Your task to perform on an android device: toggle notifications settings in the gmail app Image 0: 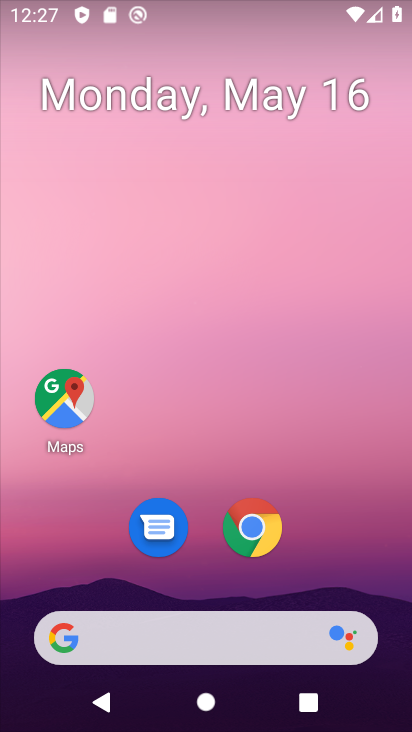
Step 0: press home button
Your task to perform on an android device: toggle notifications settings in the gmail app Image 1: 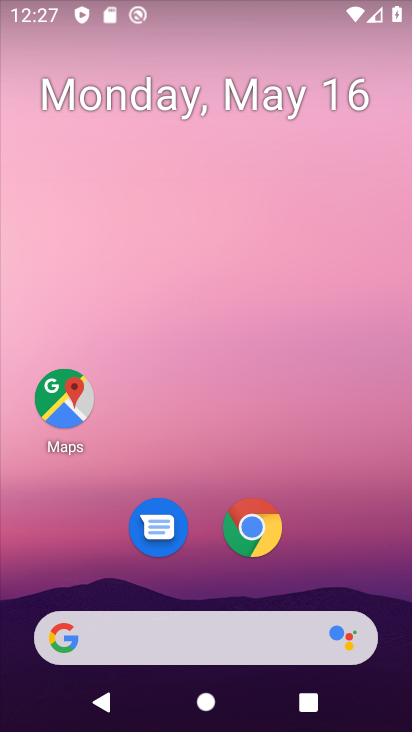
Step 1: drag from (176, 641) to (254, 210)
Your task to perform on an android device: toggle notifications settings in the gmail app Image 2: 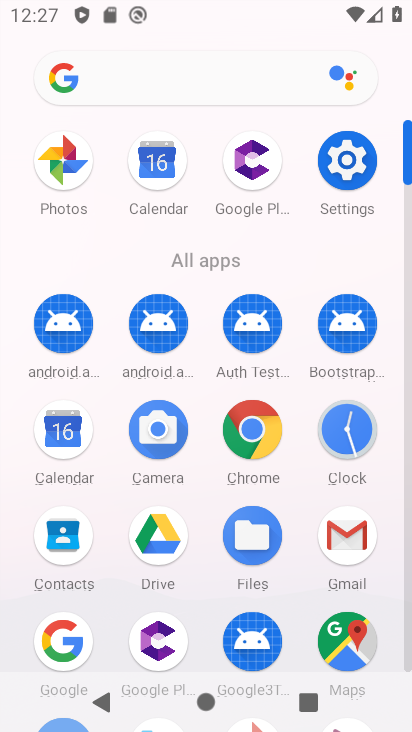
Step 2: click (353, 536)
Your task to perform on an android device: toggle notifications settings in the gmail app Image 3: 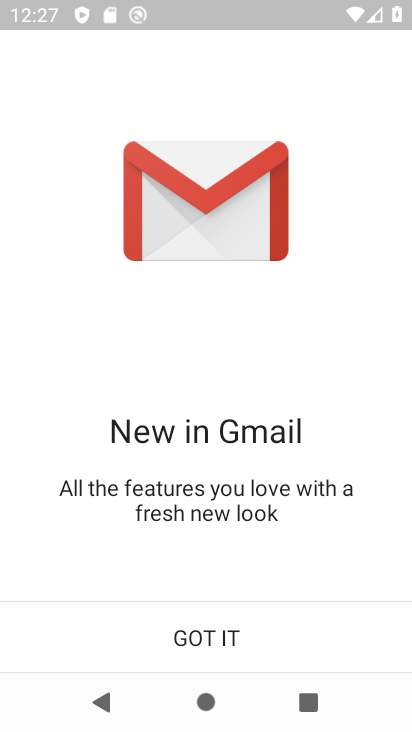
Step 3: click (209, 626)
Your task to perform on an android device: toggle notifications settings in the gmail app Image 4: 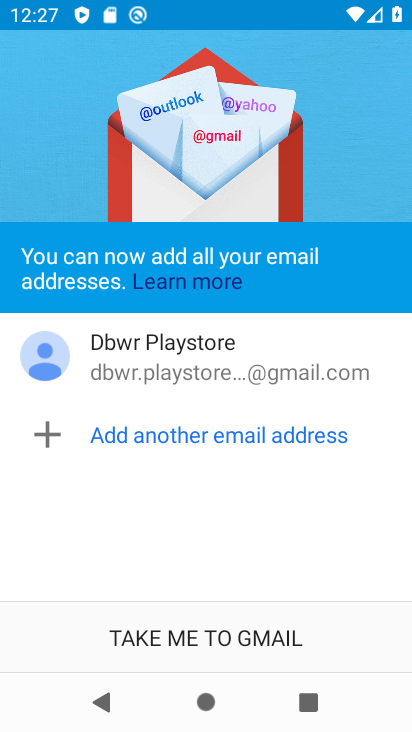
Step 4: click (208, 630)
Your task to perform on an android device: toggle notifications settings in the gmail app Image 5: 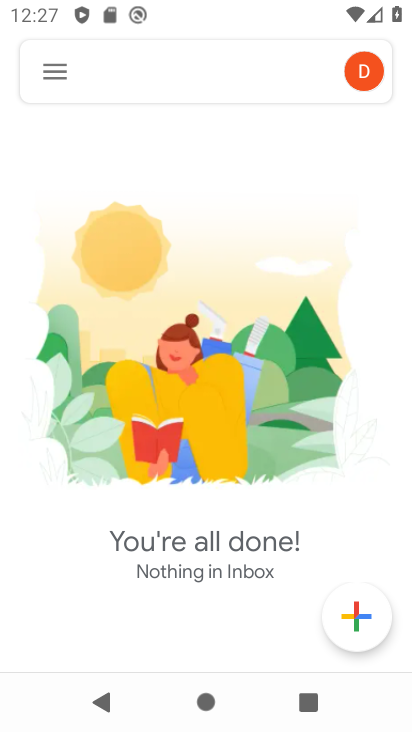
Step 5: click (50, 76)
Your task to perform on an android device: toggle notifications settings in the gmail app Image 6: 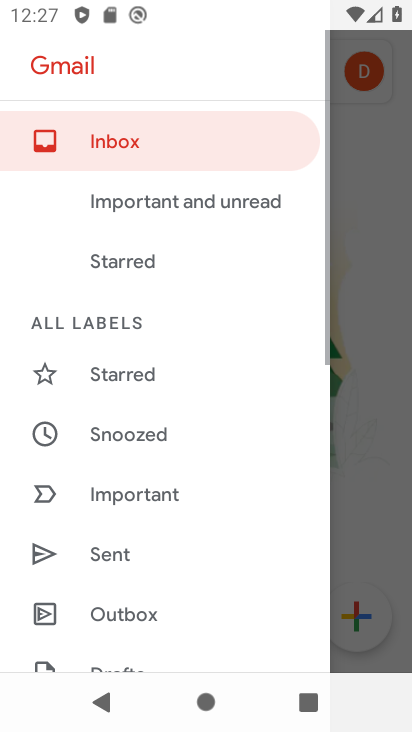
Step 6: drag from (167, 619) to (285, 111)
Your task to perform on an android device: toggle notifications settings in the gmail app Image 7: 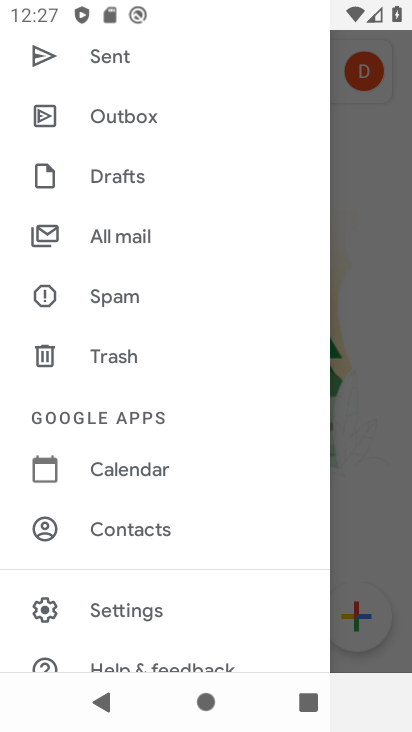
Step 7: click (143, 615)
Your task to perform on an android device: toggle notifications settings in the gmail app Image 8: 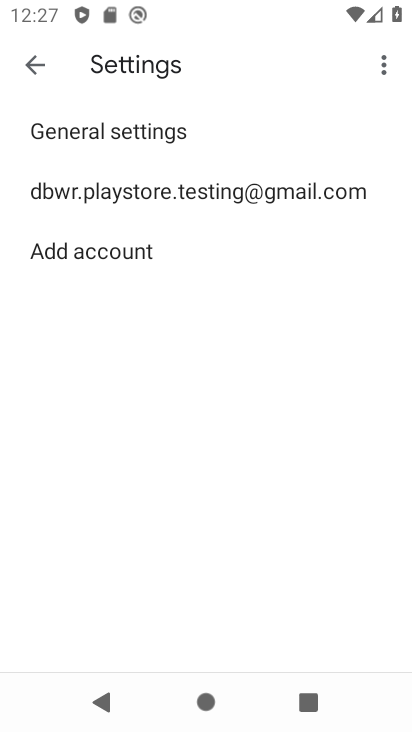
Step 8: click (244, 197)
Your task to perform on an android device: toggle notifications settings in the gmail app Image 9: 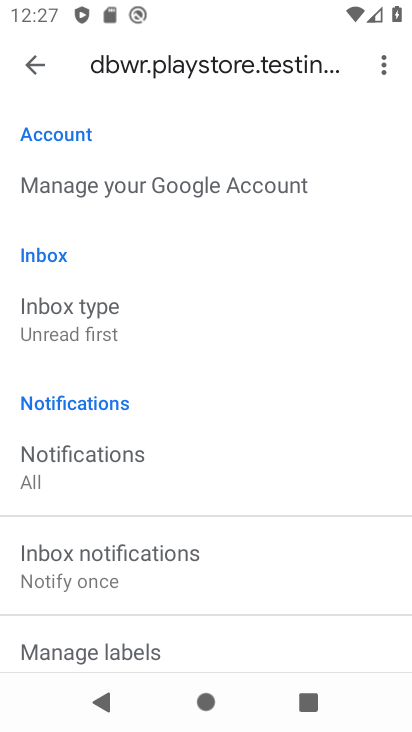
Step 9: click (117, 471)
Your task to perform on an android device: toggle notifications settings in the gmail app Image 10: 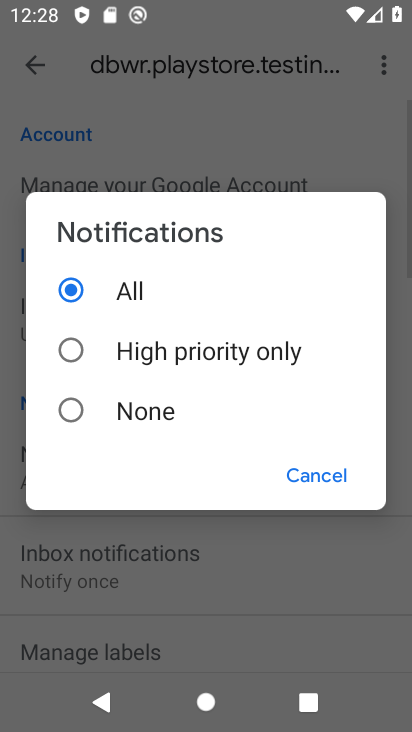
Step 10: click (66, 408)
Your task to perform on an android device: toggle notifications settings in the gmail app Image 11: 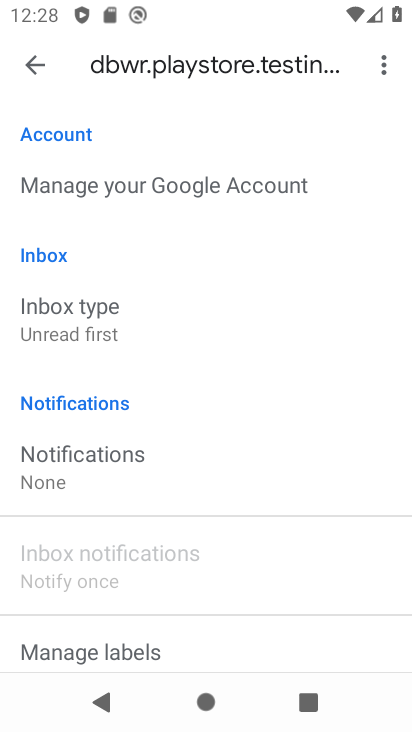
Step 11: task complete